Your task to perform on an android device: open chrome privacy settings Image 0: 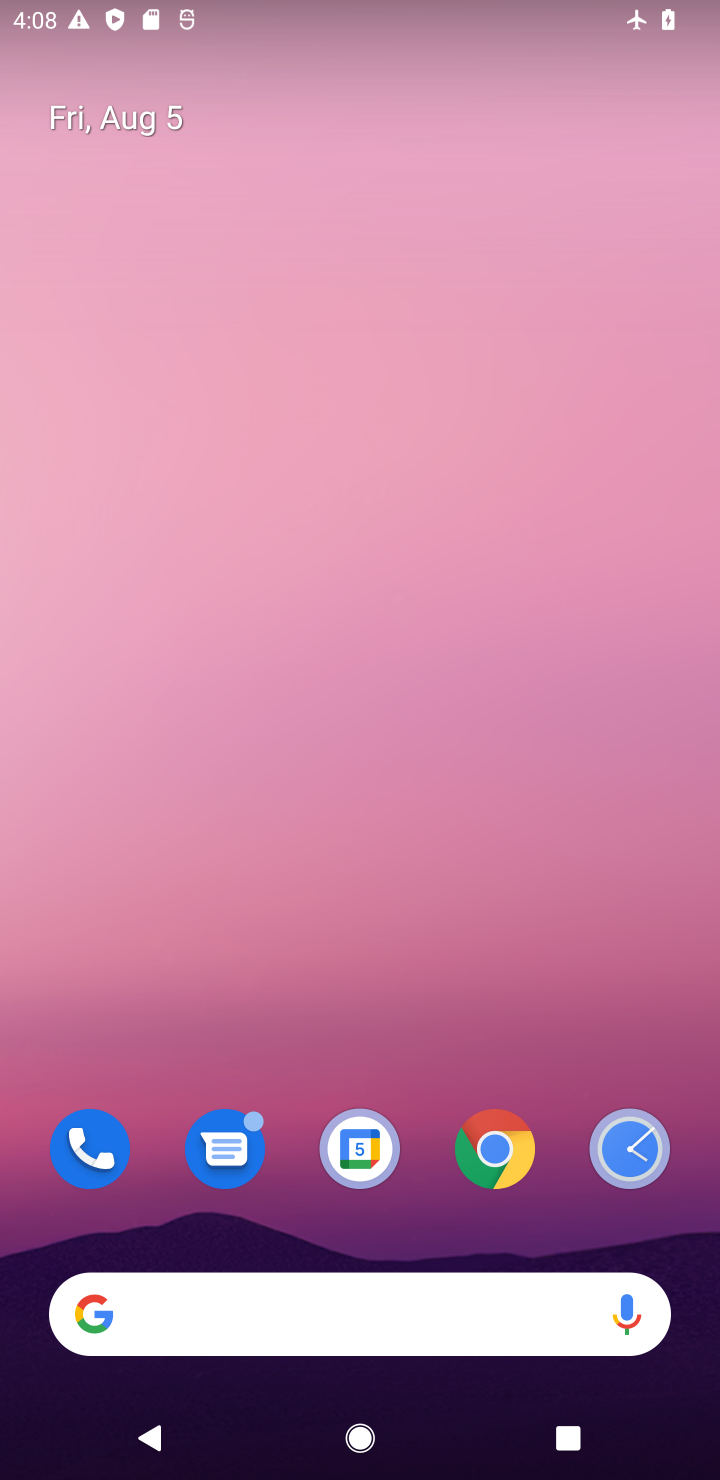
Step 0: click (494, 1146)
Your task to perform on an android device: open chrome privacy settings Image 1: 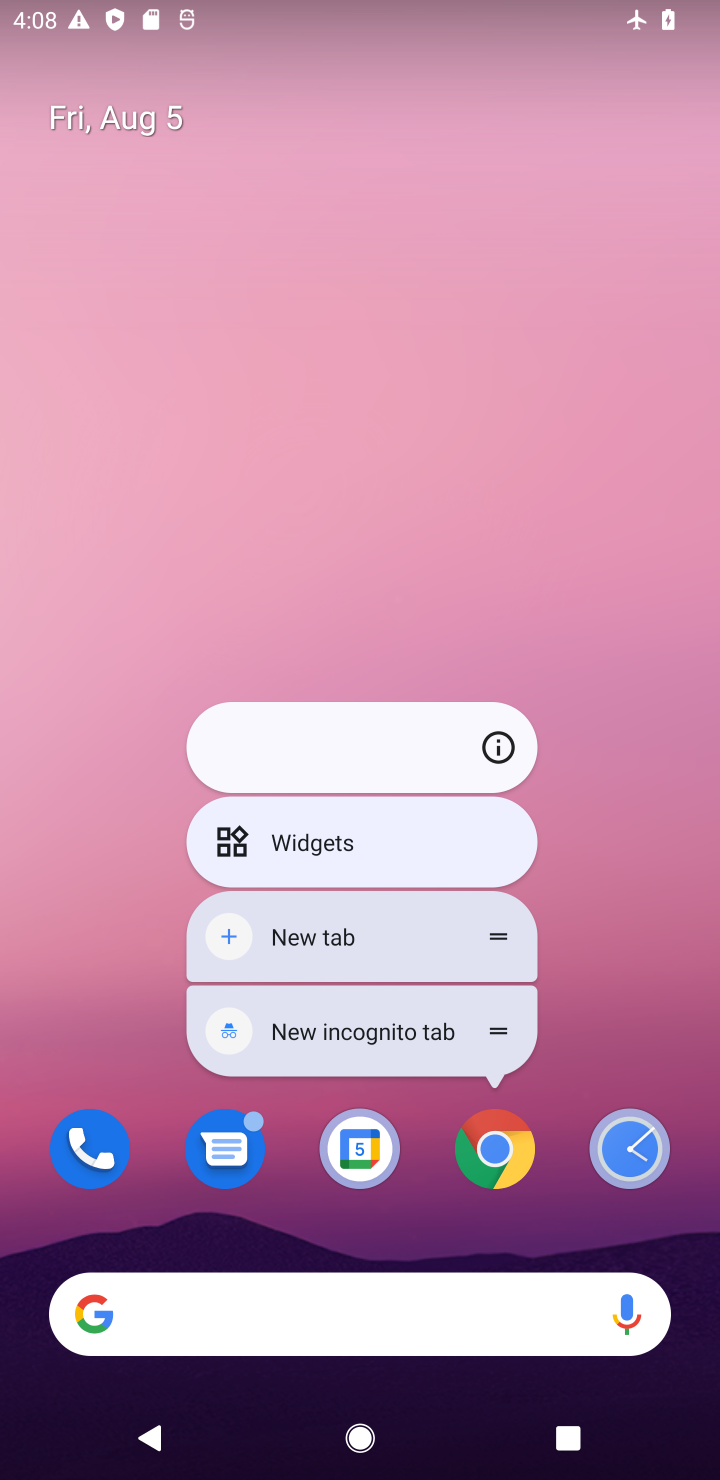
Step 1: click (492, 1143)
Your task to perform on an android device: open chrome privacy settings Image 2: 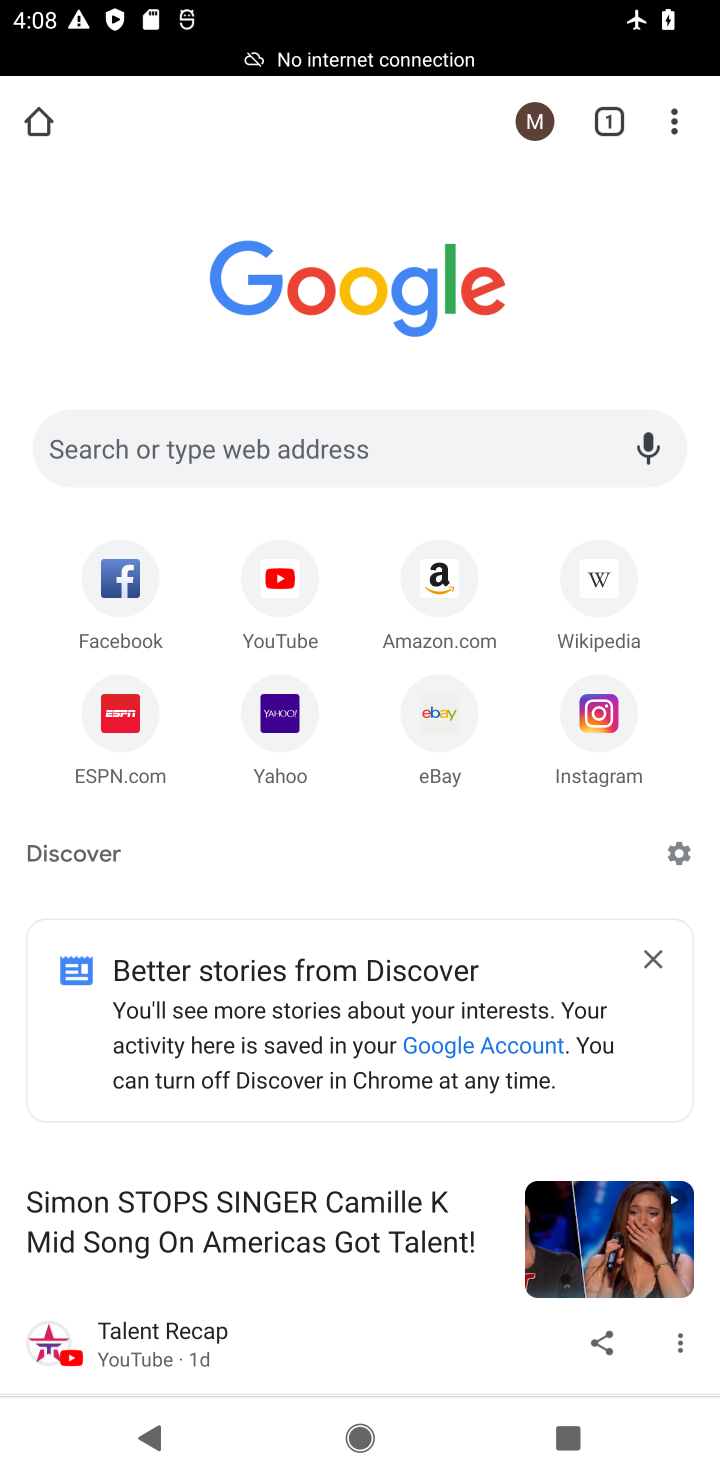
Step 2: drag from (667, 120) to (432, 895)
Your task to perform on an android device: open chrome privacy settings Image 3: 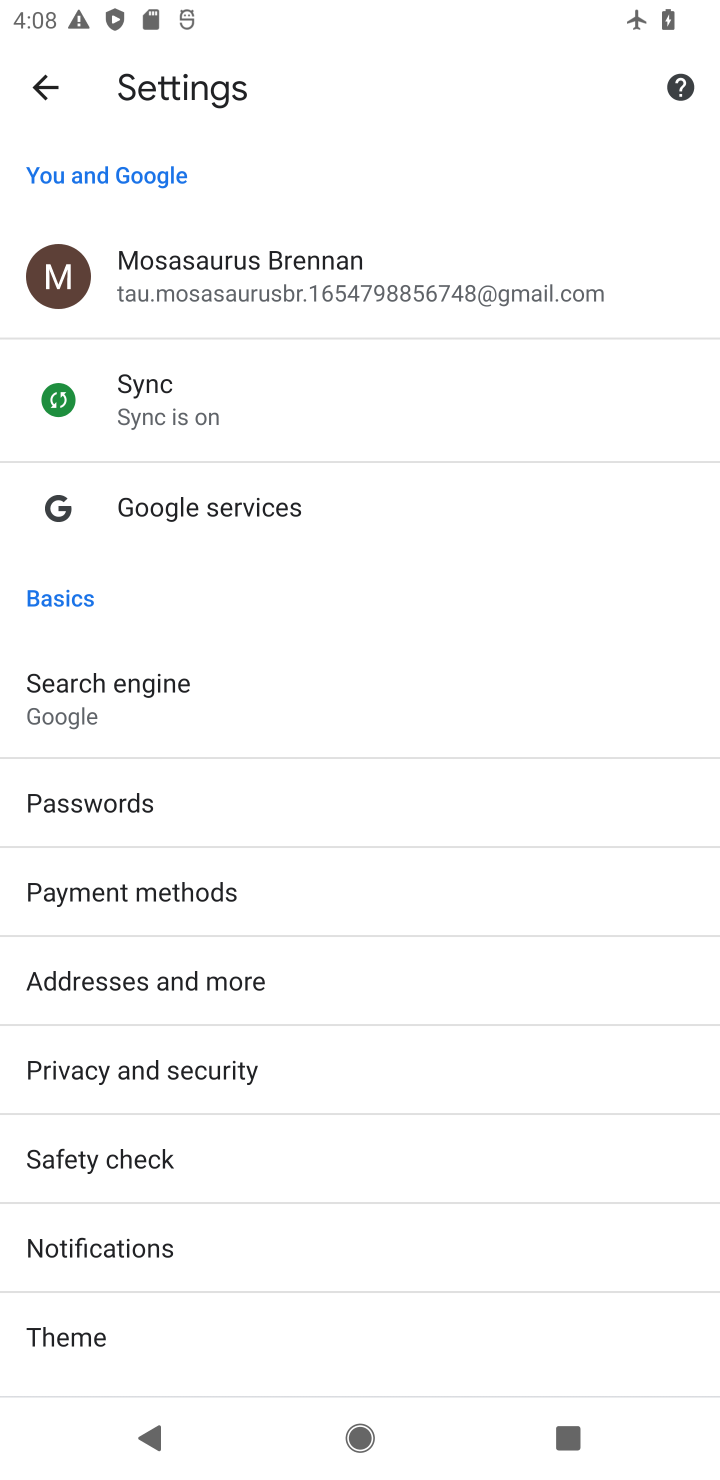
Step 3: click (117, 1078)
Your task to perform on an android device: open chrome privacy settings Image 4: 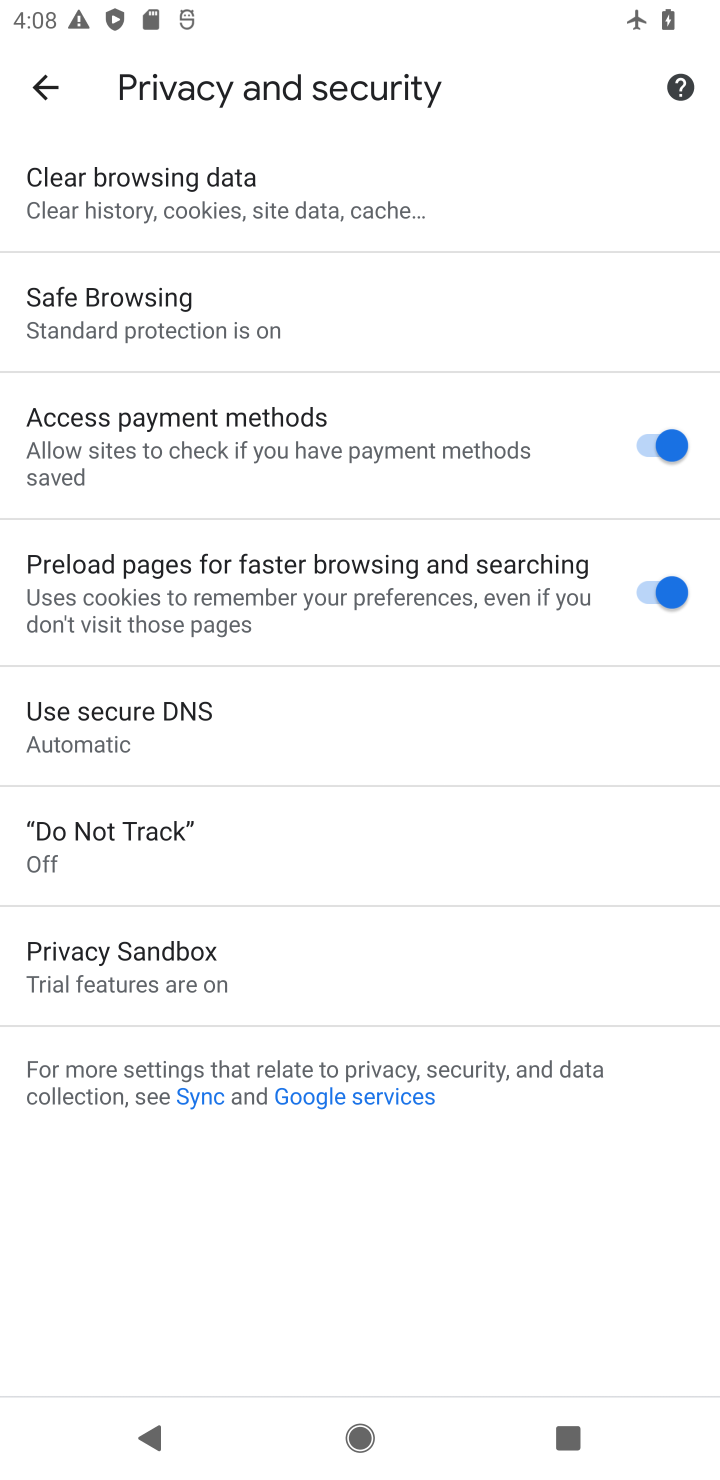
Step 4: task complete